Your task to perform on an android device: empty trash in the gmail app Image 0: 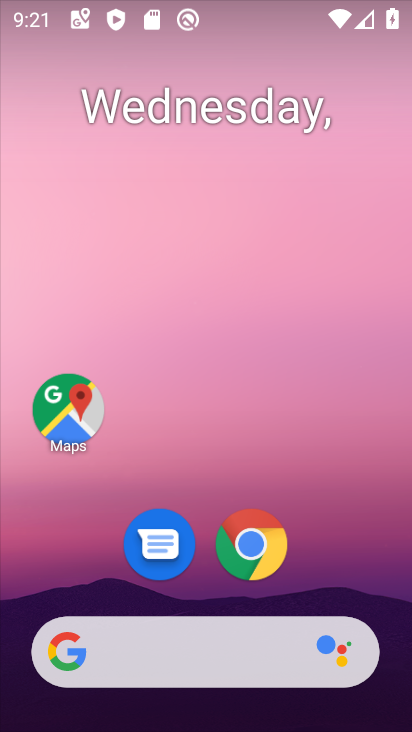
Step 0: drag from (209, 591) to (256, 94)
Your task to perform on an android device: empty trash in the gmail app Image 1: 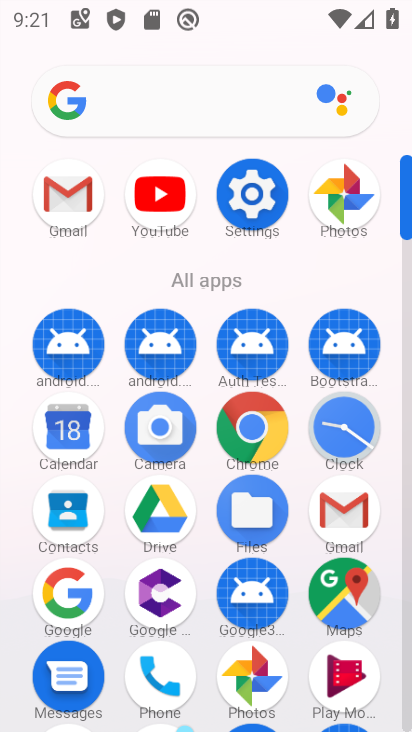
Step 1: click (91, 201)
Your task to perform on an android device: empty trash in the gmail app Image 2: 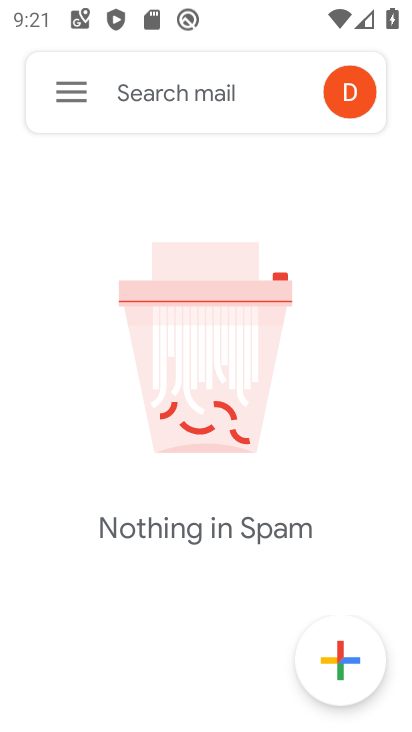
Step 2: click (84, 101)
Your task to perform on an android device: empty trash in the gmail app Image 3: 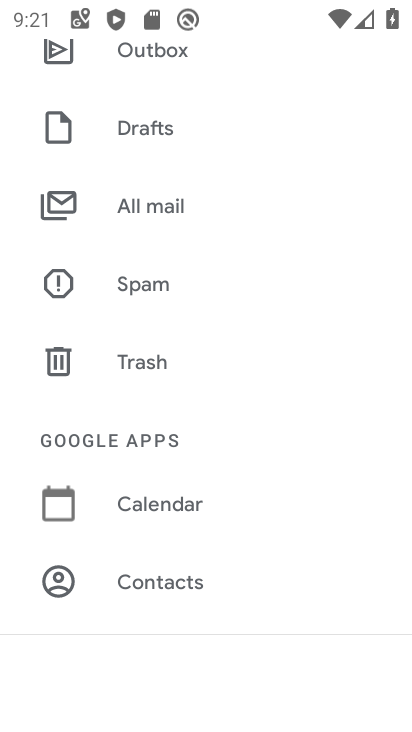
Step 3: click (110, 375)
Your task to perform on an android device: empty trash in the gmail app Image 4: 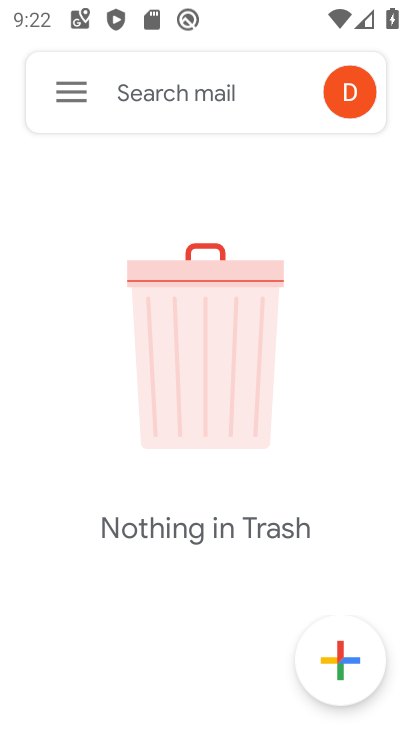
Step 4: task complete